Your task to perform on an android device: change alarm snooze length Image 0: 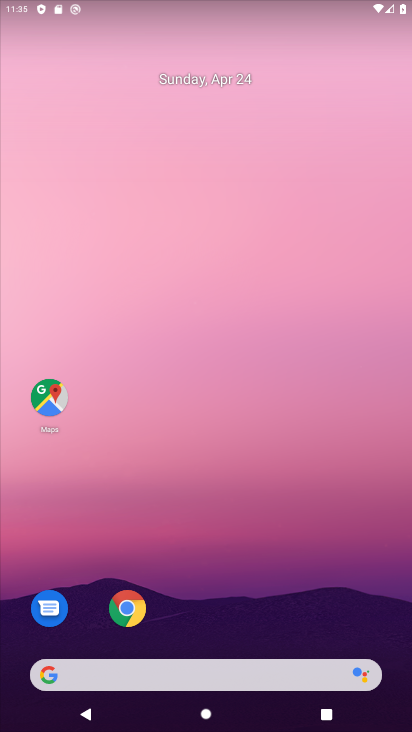
Step 0: drag from (232, 717) to (240, 103)
Your task to perform on an android device: change alarm snooze length Image 1: 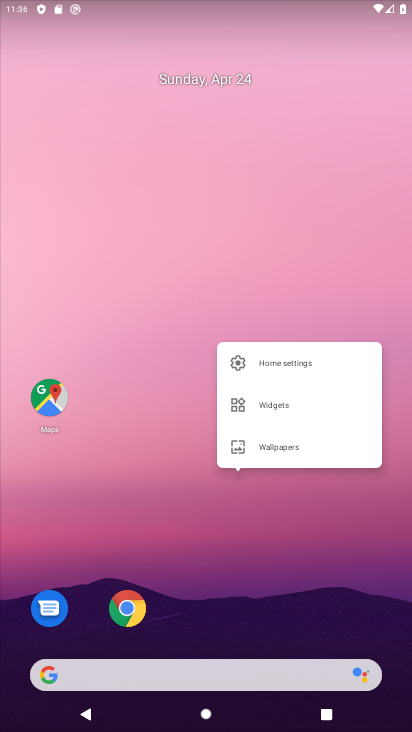
Step 1: click (218, 203)
Your task to perform on an android device: change alarm snooze length Image 2: 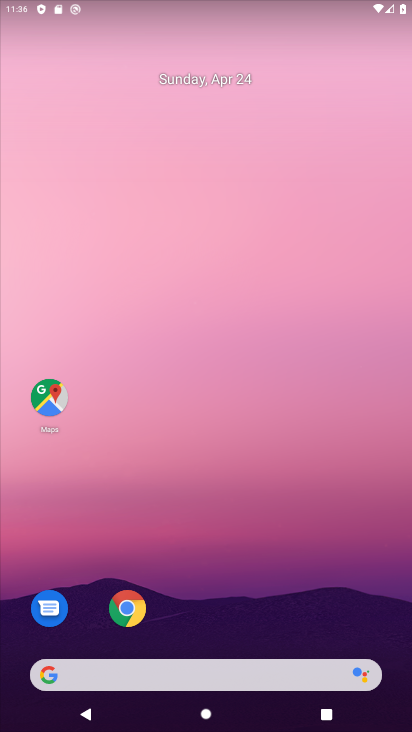
Step 2: drag from (230, 729) to (234, 127)
Your task to perform on an android device: change alarm snooze length Image 3: 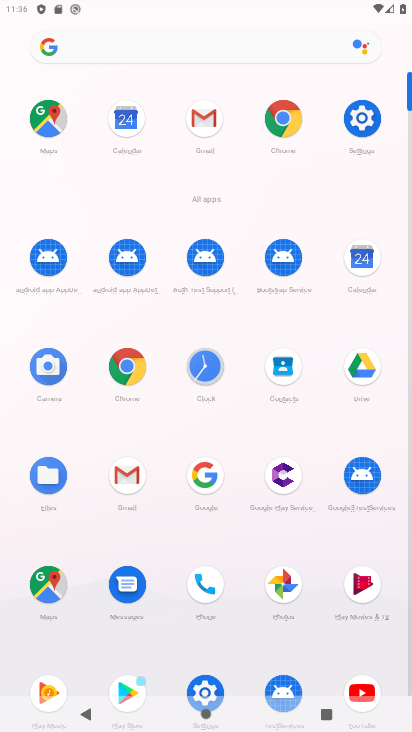
Step 3: click (202, 365)
Your task to perform on an android device: change alarm snooze length Image 4: 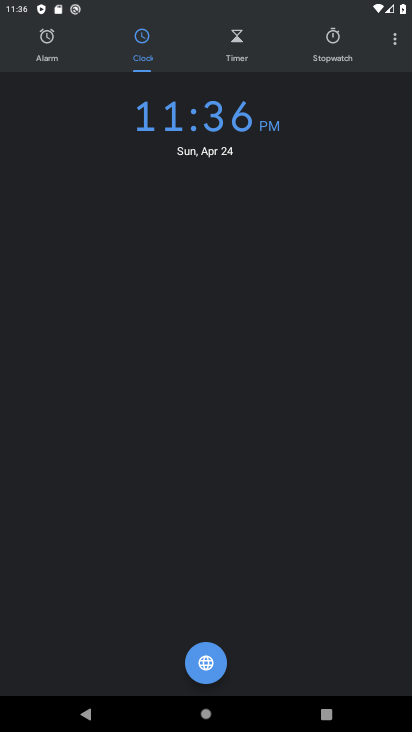
Step 4: click (397, 42)
Your task to perform on an android device: change alarm snooze length Image 5: 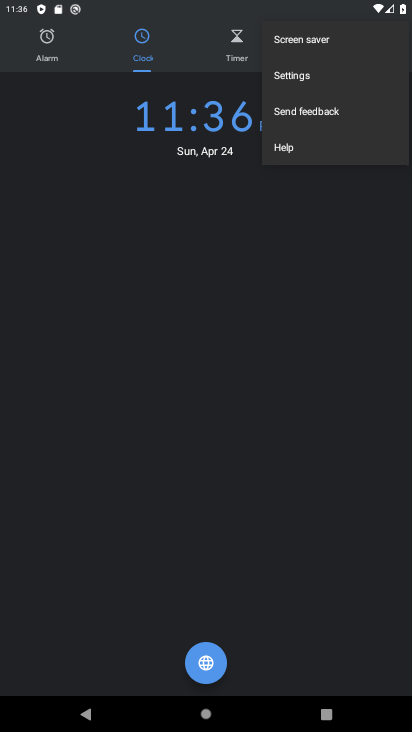
Step 5: click (297, 73)
Your task to perform on an android device: change alarm snooze length Image 6: 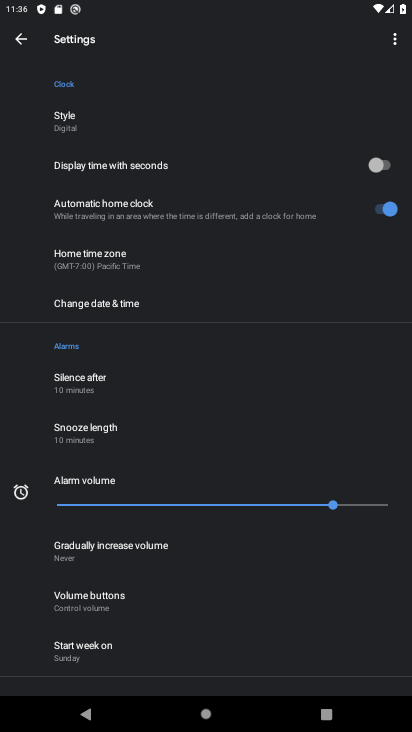
Step 6: click (86, 434)
Your task to perform on an android device: change alarm snooze length Image 7: 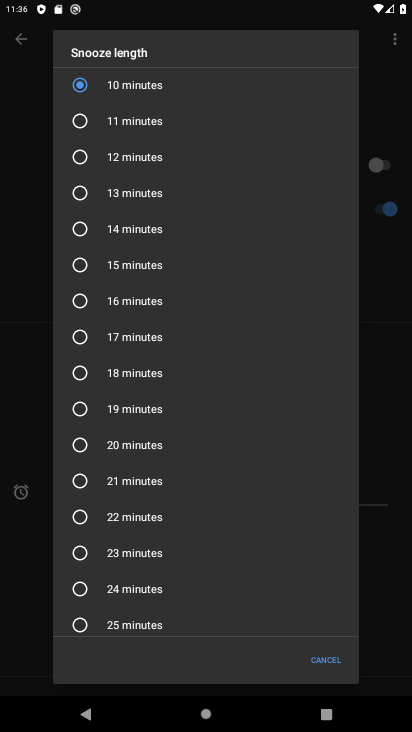
Step 7: click (77, 404)
Your task to perform on an android device: change alarm snooze length Image 8: 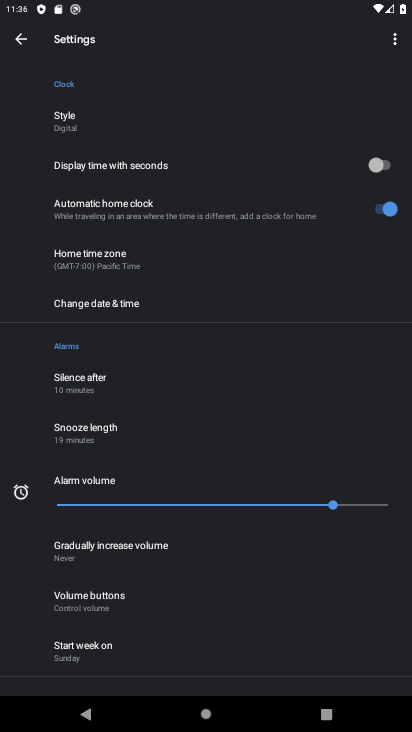
Step 8: task complete